Your task to perform on an android device: What's on my calendar today? Image 0: 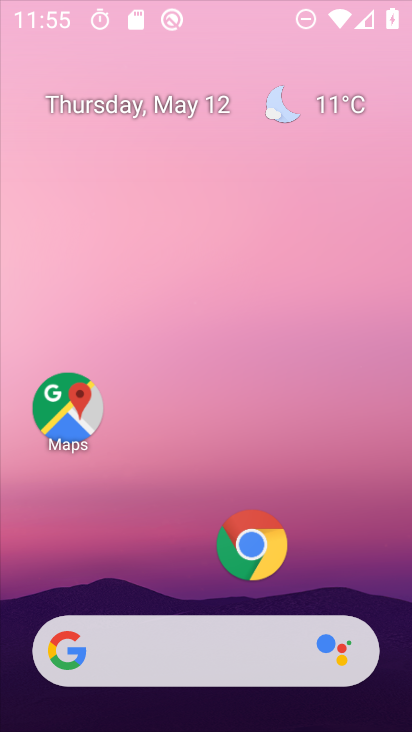
Step 0: press home button
Your task to perform on an android device: What's on my calendar today? Image 1: 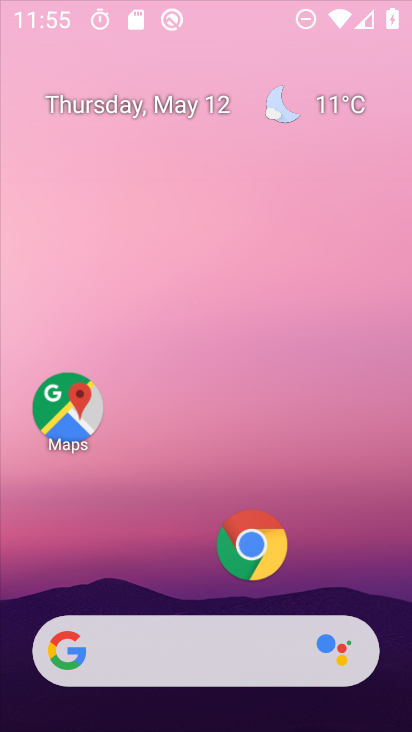
Step 1: drag from (200, 591) to (243, 12)
Your task to perform on an android device: What's on my calendar today? Image 2: 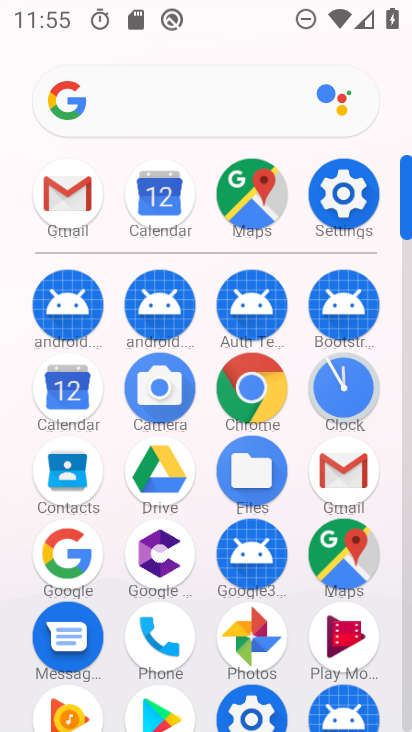
Step 2: click (64, 386)
Your task to perform on an android device: What's on my calendar today? Image 3: 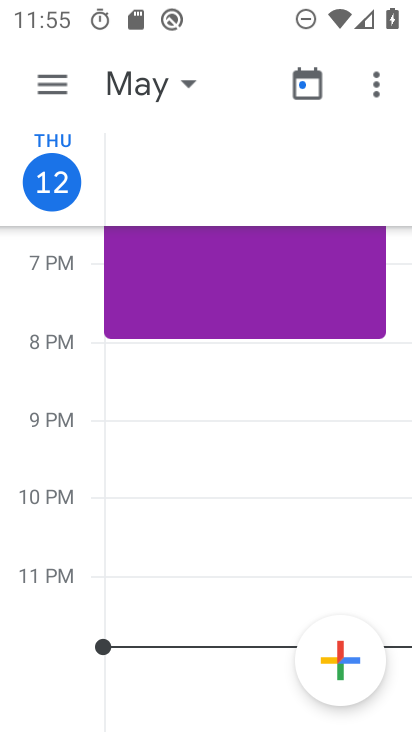
Step 3: task complete